Your task to perform on an android device: clear history in the chrome app Image 0: 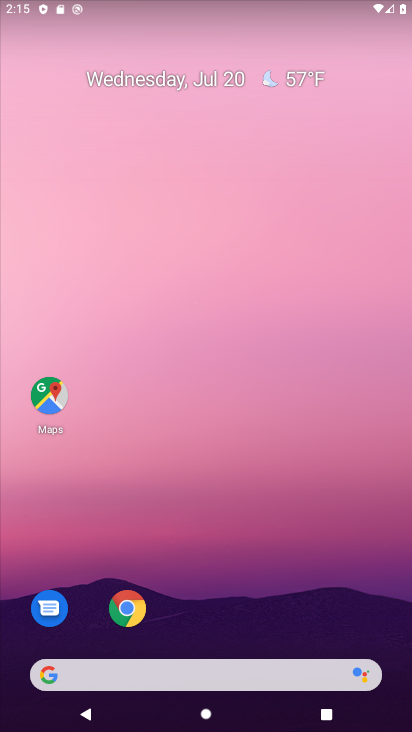
Step 0: press home button
Your task to perform on an android device: clear history in the chrome app Image 1: 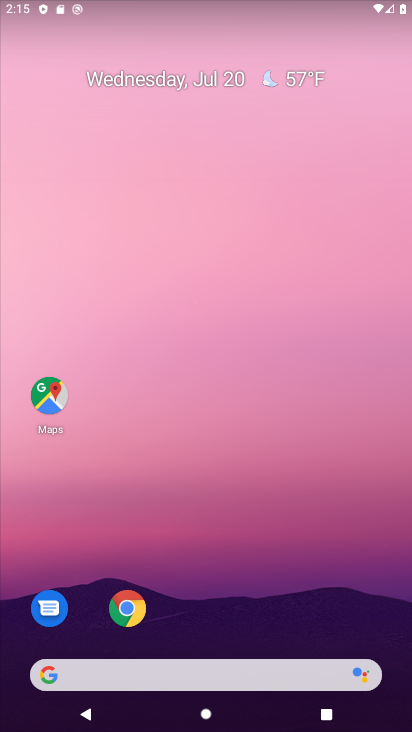
Step 1: click (126, 598)
Your task to perform on an android device: clear history in the chrome app Image 2: 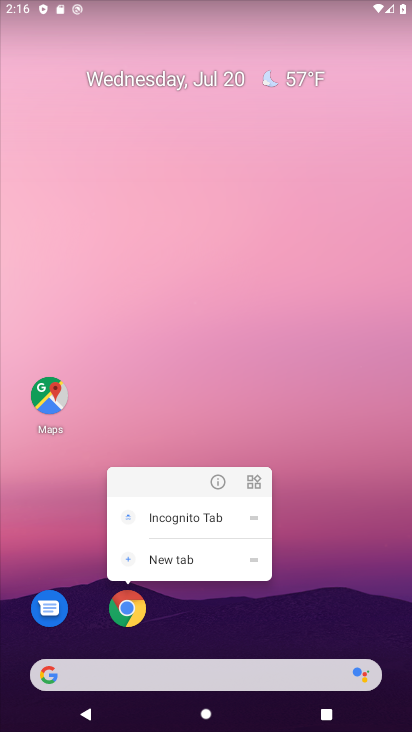
Step 2: click (124, 602)
Your task to perform on an android device: clear history in the chrome app Image 3: 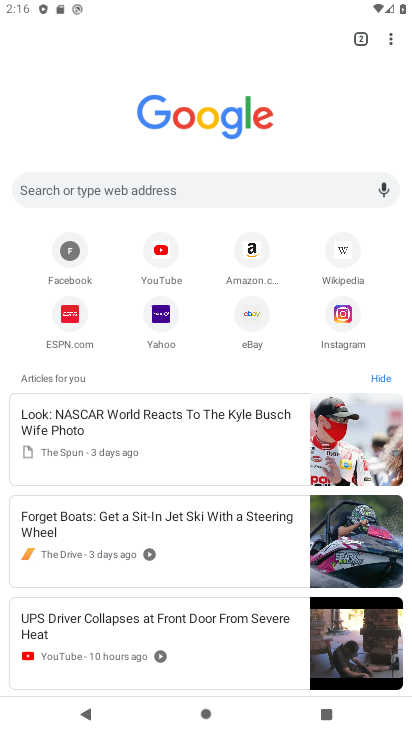
Step 3: click (384, 34)
Your task to perform on an android device: clear history in the chrome app Image 4: 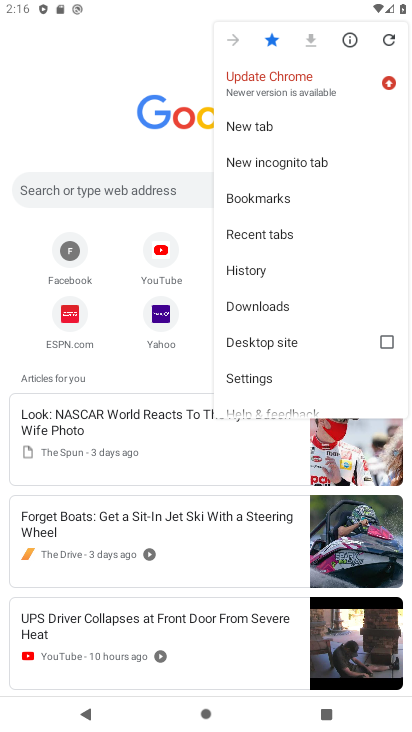
Step 4: click (257, 265)
Your task to perform on an android device: clear history in the chrome app Image 5: 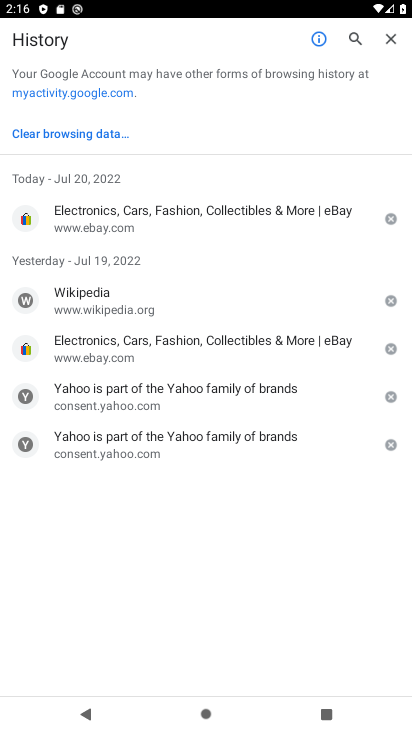
Step 5: click (30, 132)
Your task to perform on an android device: clear history in the chrome app Image 6: 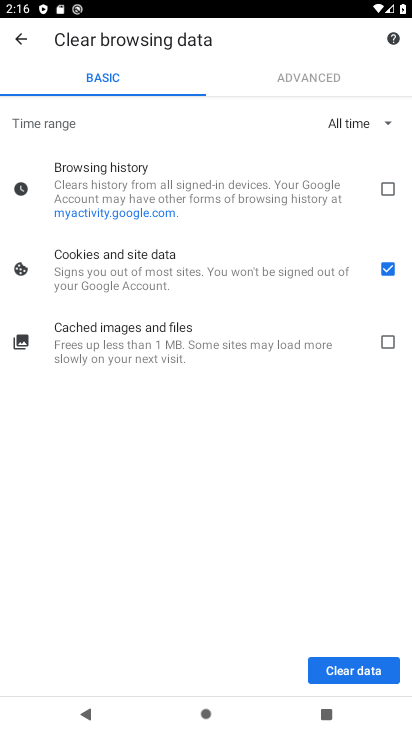
Step 6: click (378, 184)
Your task to perform on an android device: clear history in the chrome app Image 7: 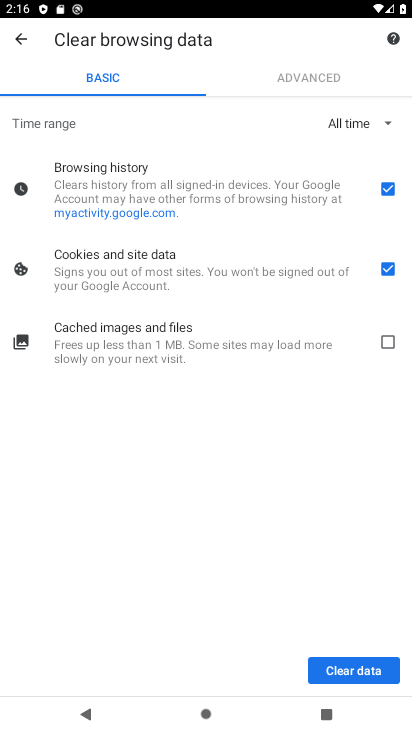
Step 7: click (387, 344)
Your task to perform on an android device: clear history in the chrome app Image 8: 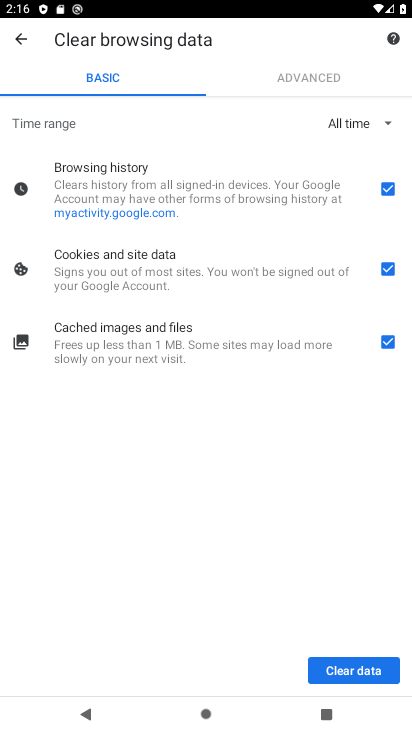
Step 8: click (356, 674)
Your task to perform on an android device: clear history in the chrome app Image 9: 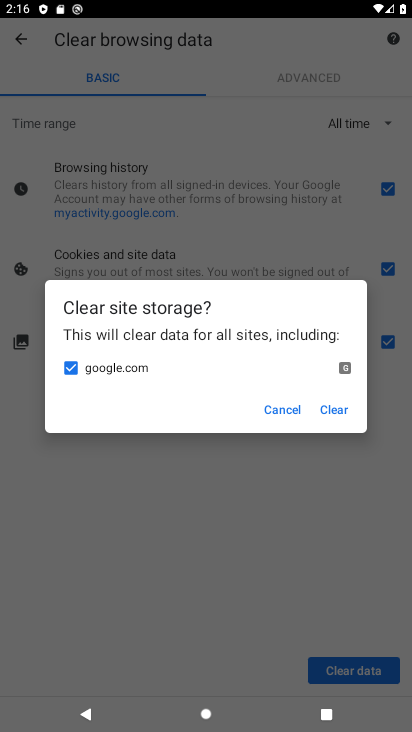
Step 9: click (329, 406)
Your task to perform on an android device: clear history in the chrome app Image 10: 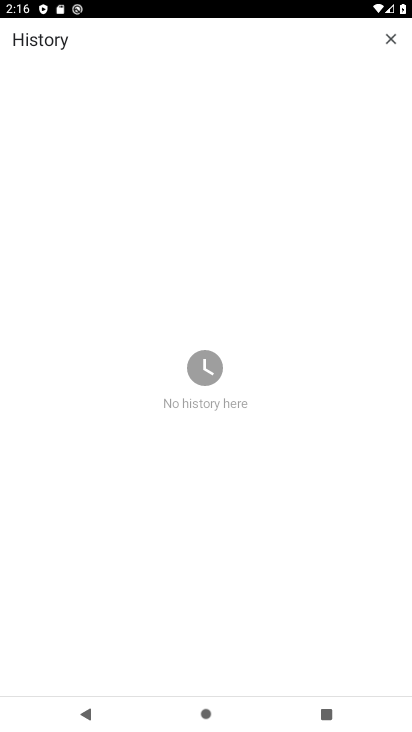
Step 10: task complete